Your task to perform on an android device: What is the capital of Japan? Image 0: 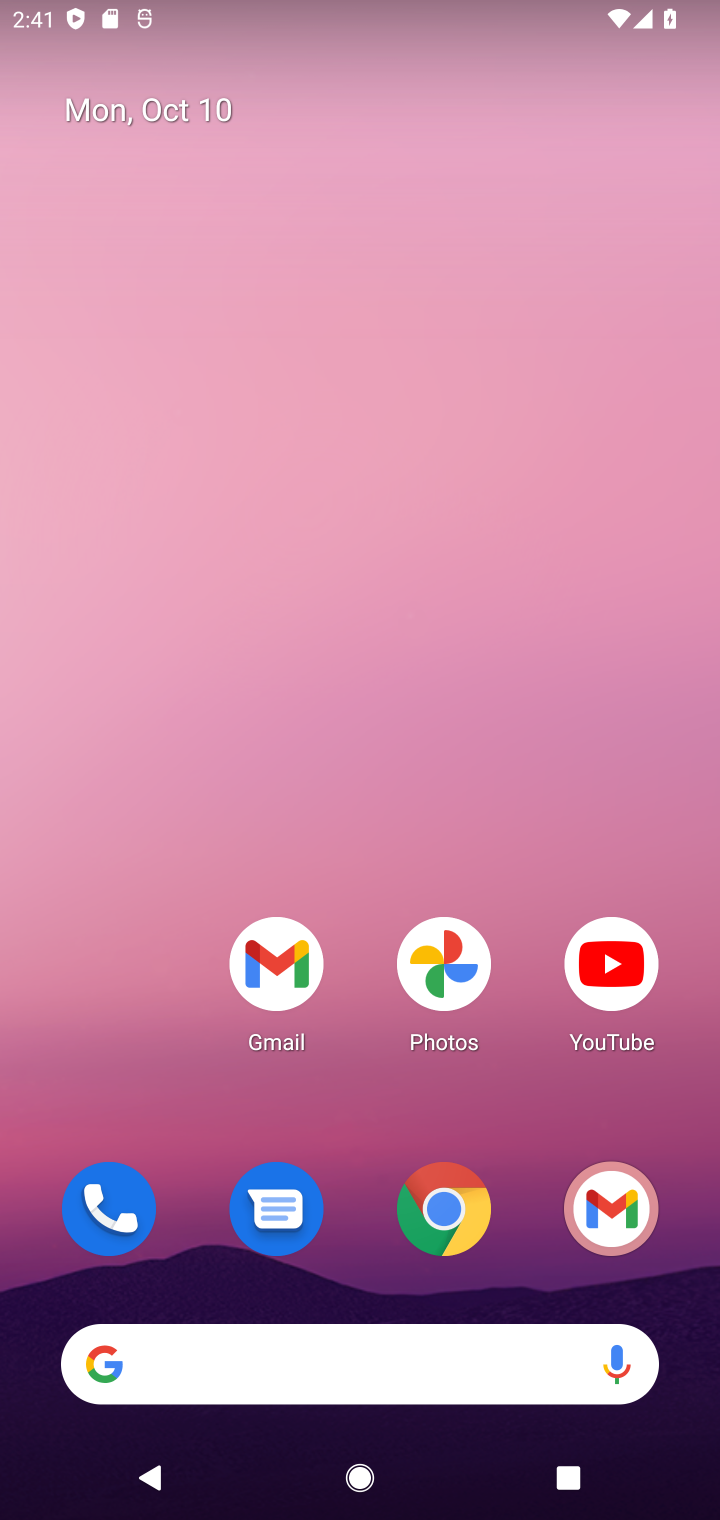
Step 0: click (485, 1185)
Your task to perform on an android device: What is the capital of Japan? Image 1: 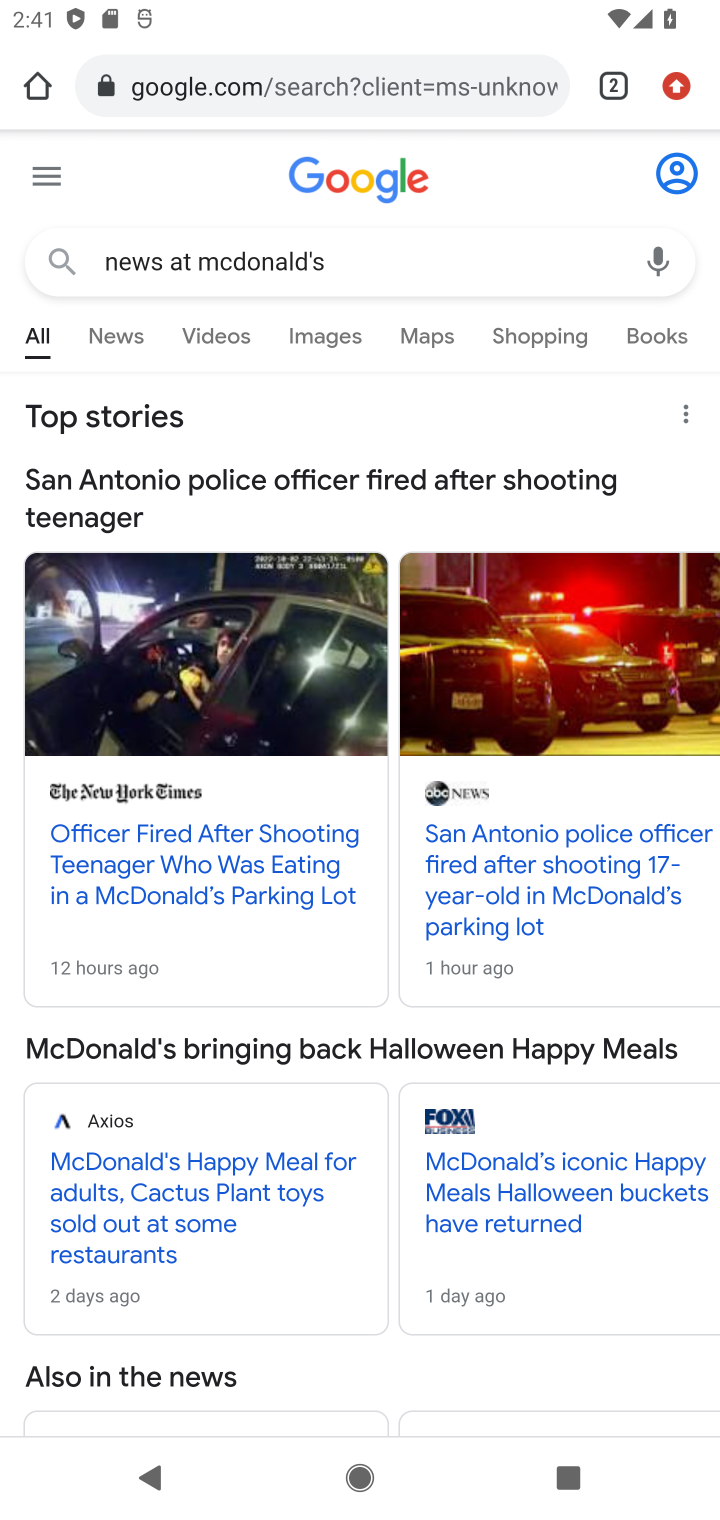
Step 1: click (427, 276)
Your task to perform on an android device: What is the capital of Japan? Image 2: 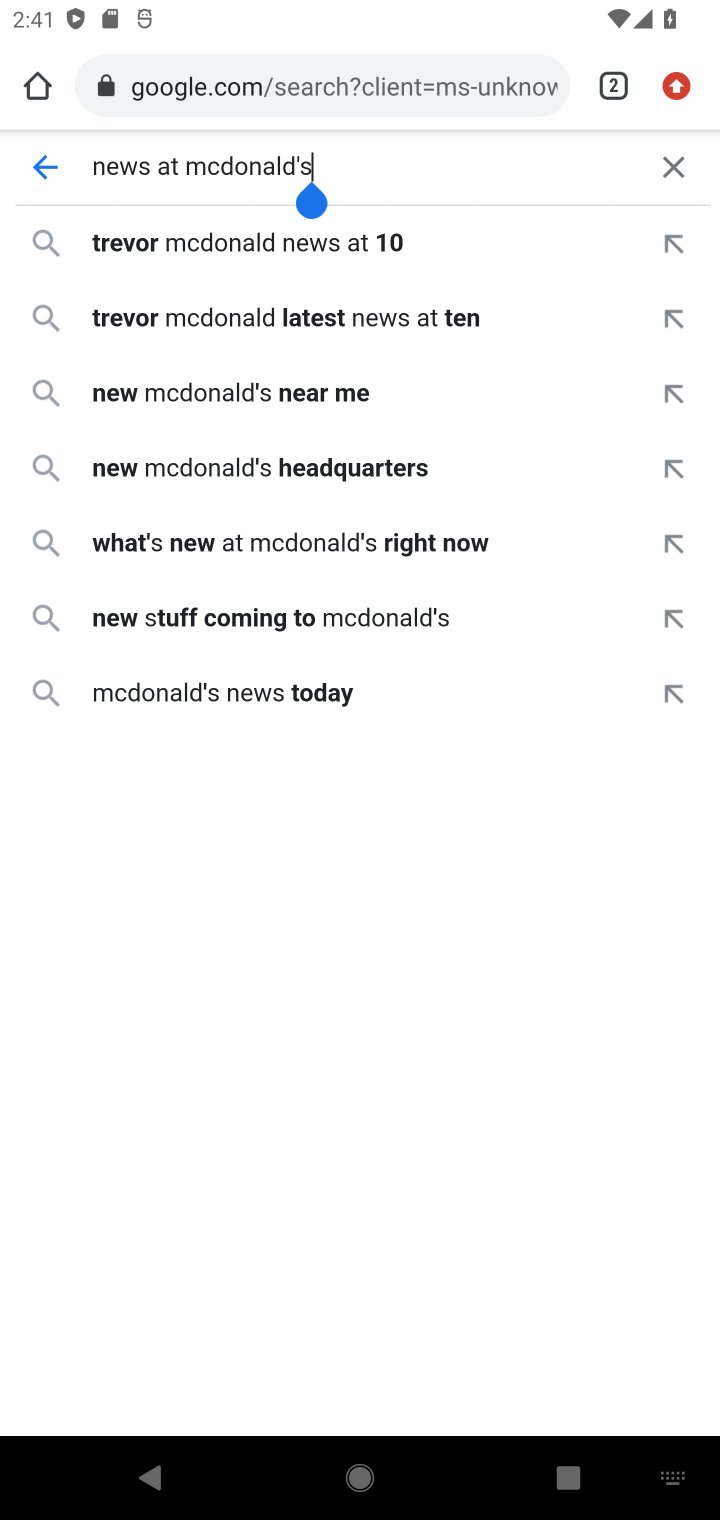
Step 2: click (666, 177)
Your task to perform on an android device: What is the capital of Japan? Image 3: 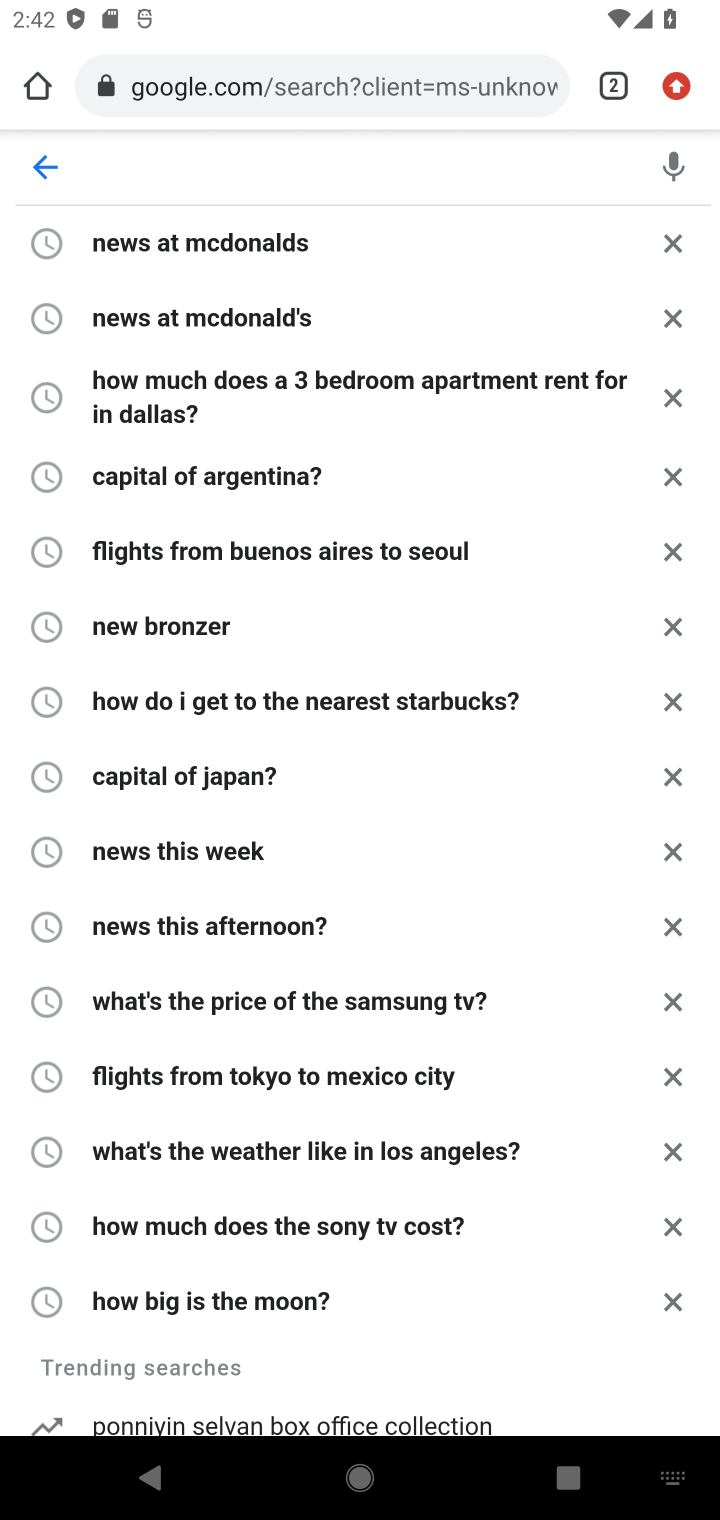
Step 3: type "capital of japan"
Your task to perform on an android device: What is the capital of Japan? Image 4: 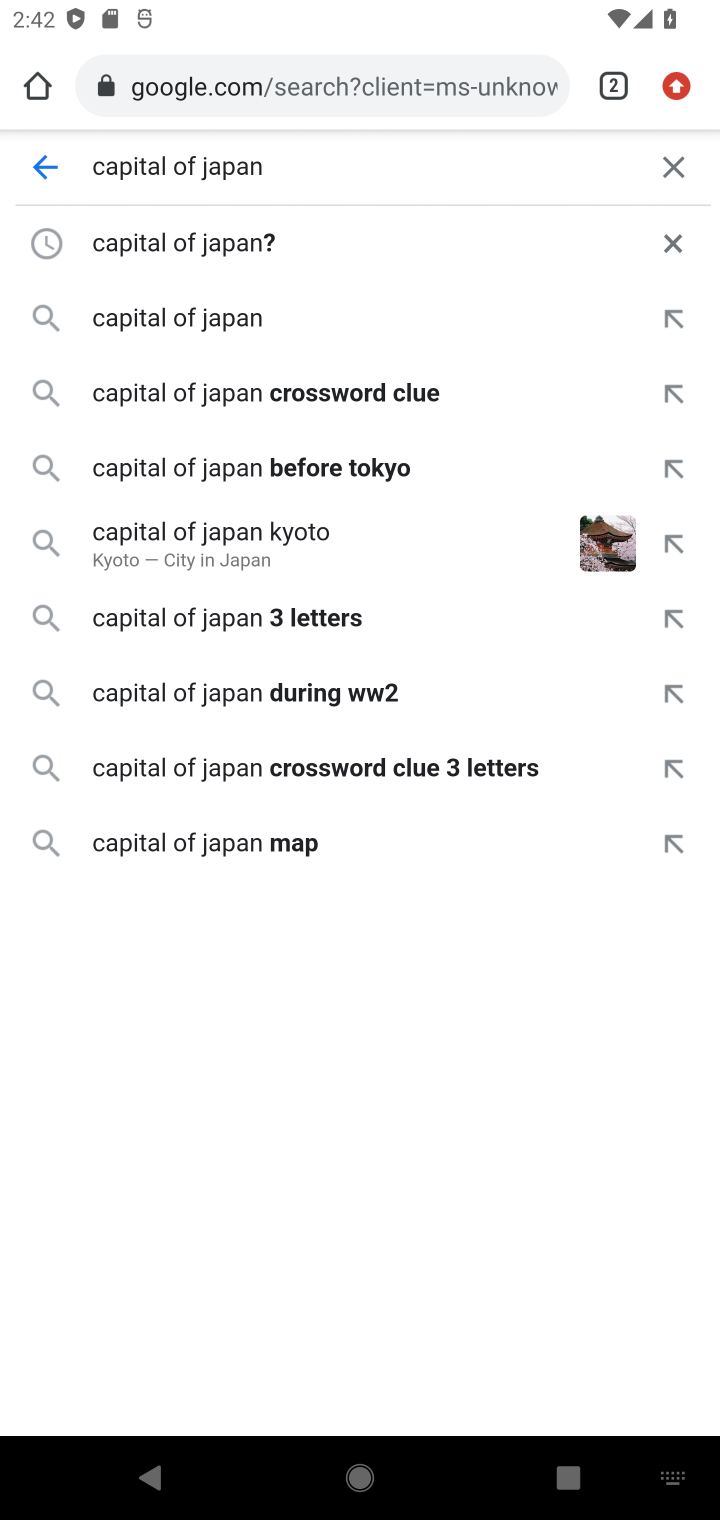
Step 4: press enter
Your task to perform on an android device: What is the capital of Japan? Image 5: 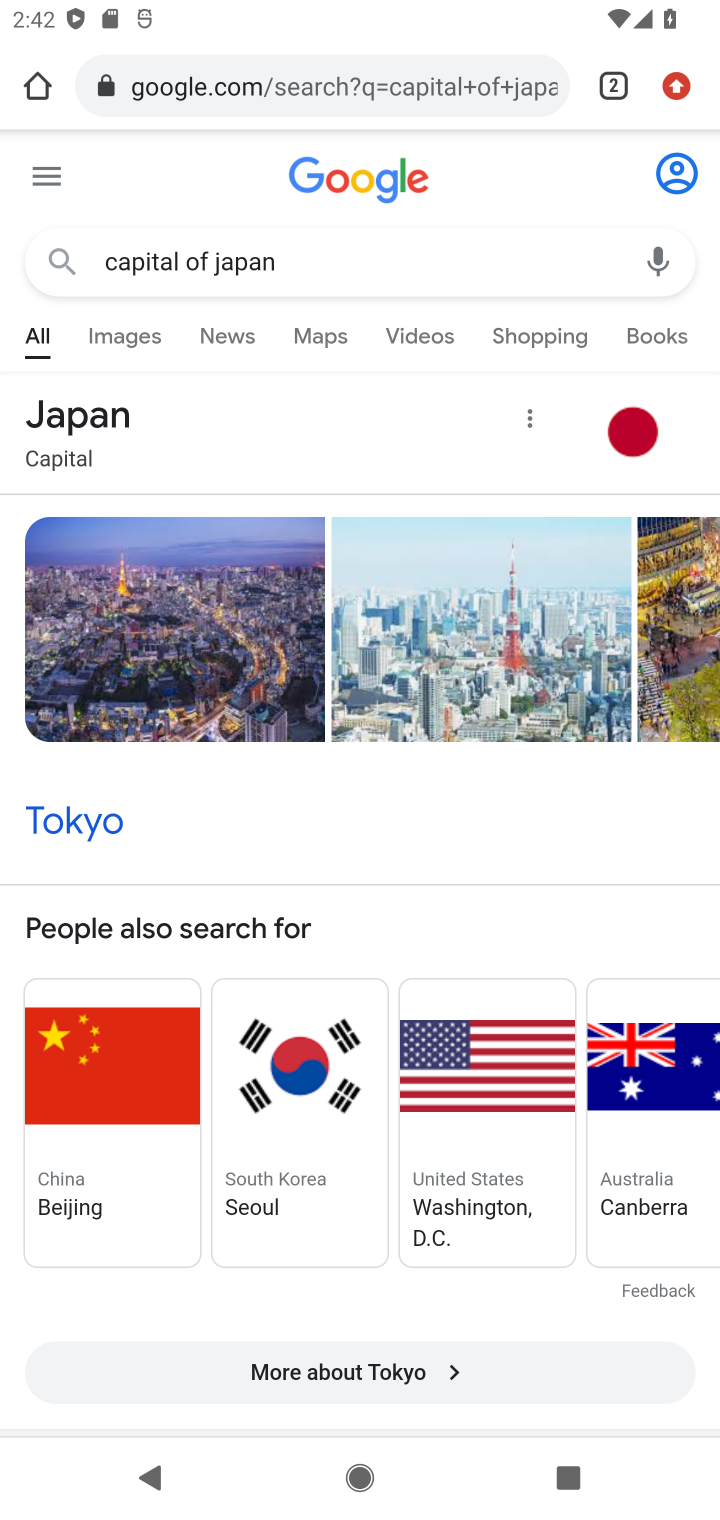
Step 5: task complete